Your task to perform on an android device: Open accessibility settings Image 0: 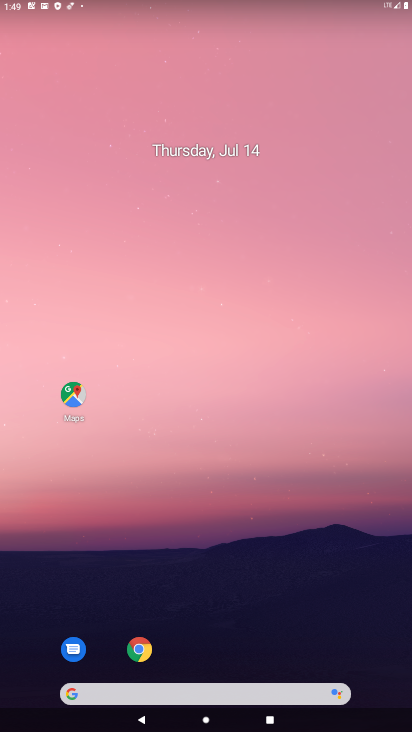
Step 0: drag from (370, 658) to (260, 97)
Your task to perform on an android device: Open accessibility settings Image 1: 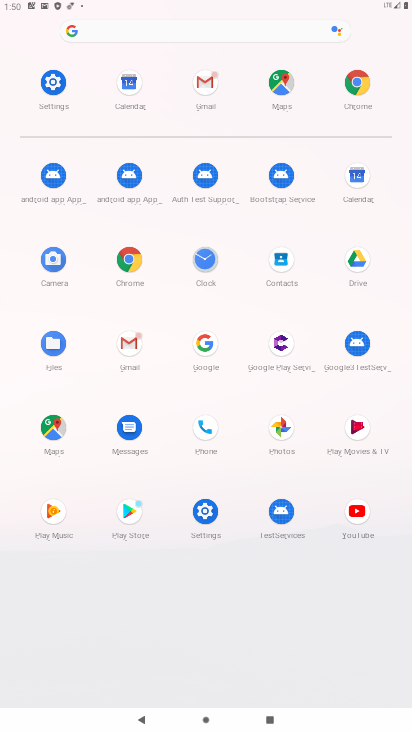
Step 1: click (204, 525)
Your task to perform on an android device: Open accessibility settings Image 2: 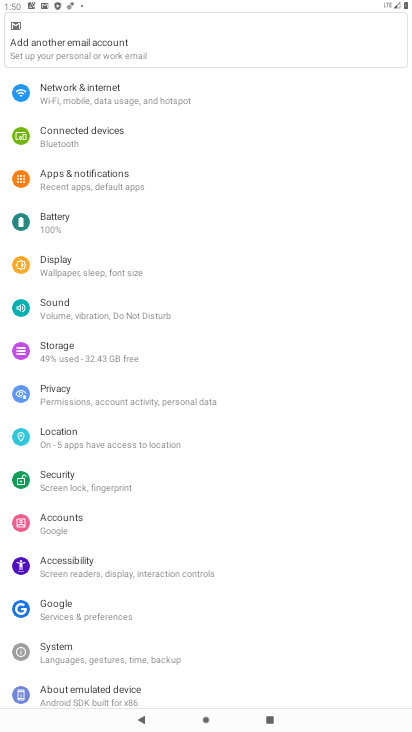
Step 2: click (70, 570)
Your task to perform on an android device: Open accessibility settings Image 3: 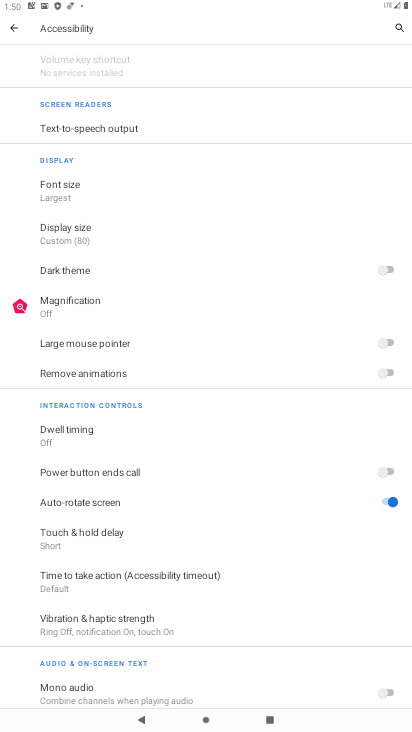
Step 3: task complete